Your task to perform on an android device: Find coffee shops on Maps Image 0: 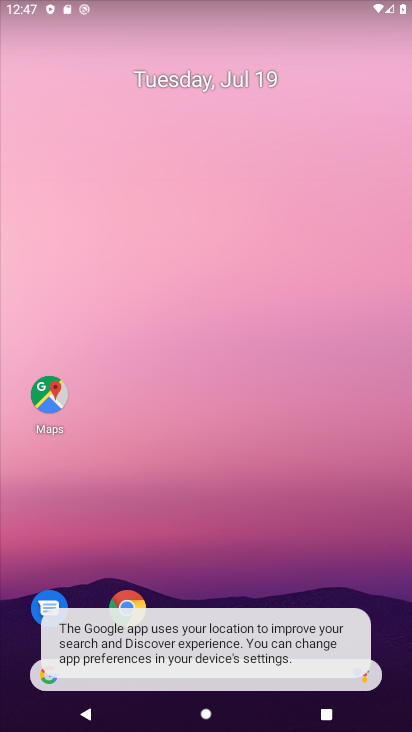
Step 0: drag from (321, 496) to (327, 58)
Your task to perform on an android device: Find coffee shops on Maps Image 1: 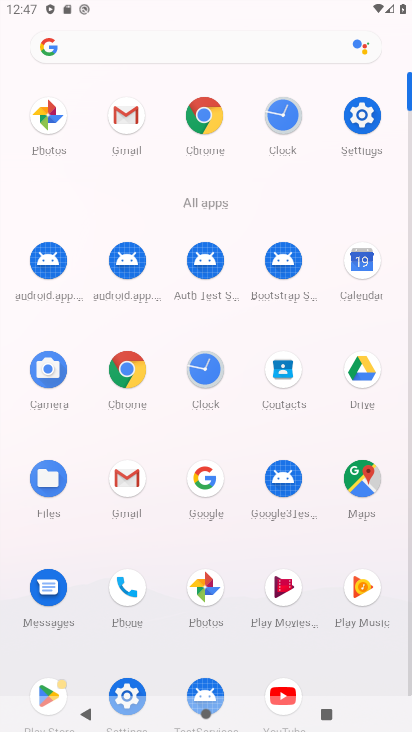
Step 1: click (369, 482)
Your task to perform on an android device: Find coffee shops on Maps Image 2: 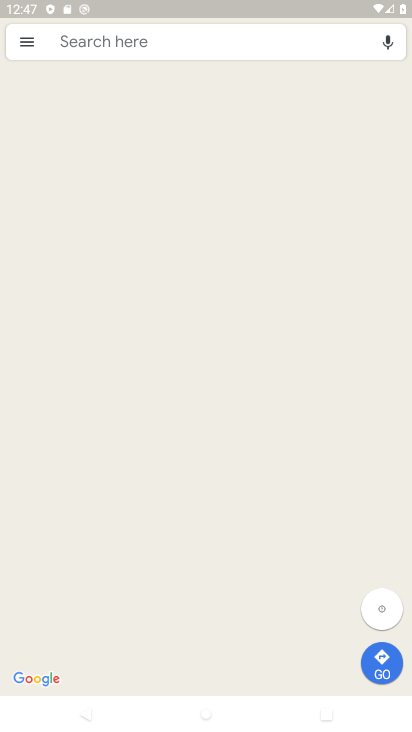
Step 2: click (131, 43)
Your task to perform on an android device: Find coffee shops on Maps Image 3: 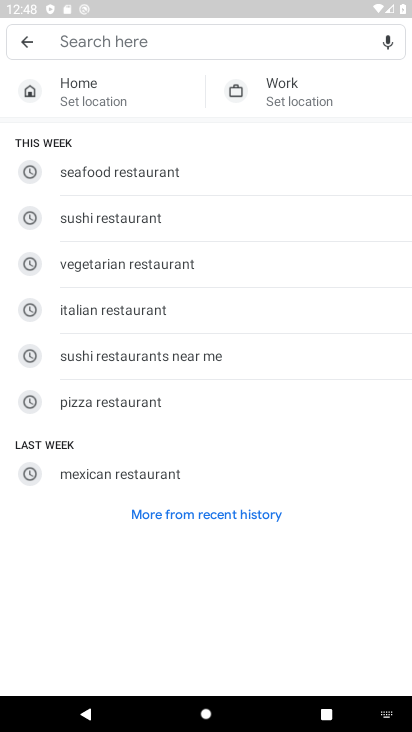
Step 3: type "coffee"
Your task to perform on an android device: Find coffee shops on Maps Image 4: 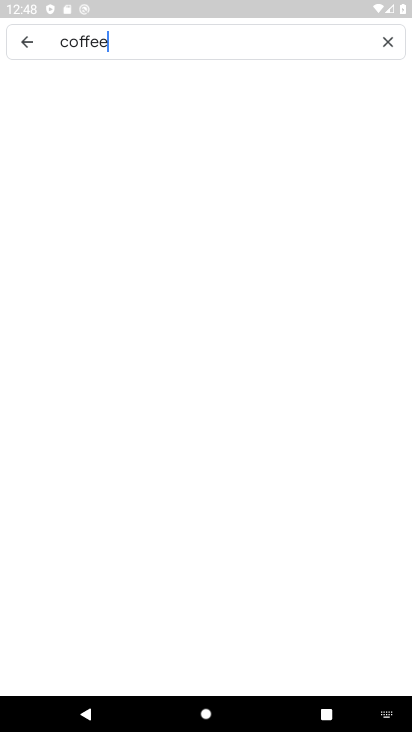
Step 4: press enter
Your task to perform on an android device: Find coffee shops on Maps Image 5: 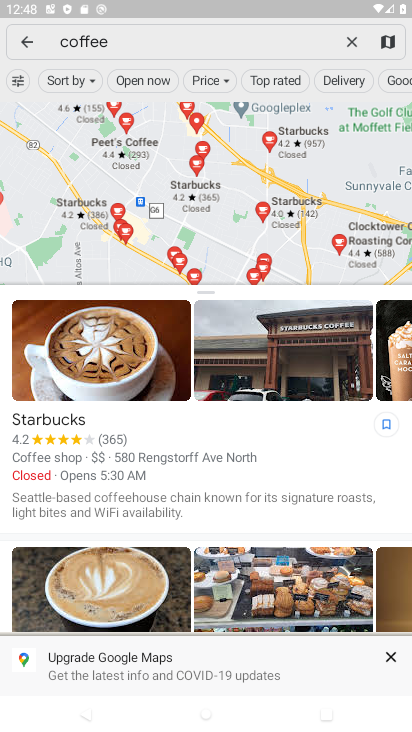
Step 5: task complete